Your task to perform on an android device: find snoozed emails in the gmail app Image 0: 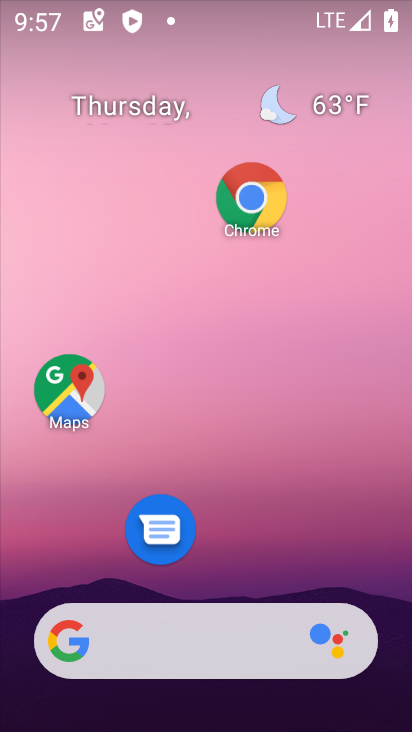
Step 0: drag from (216, 572) to (270, 21)
Your task to perform on an android device: find snoozed emails in the gmail app Image 1: 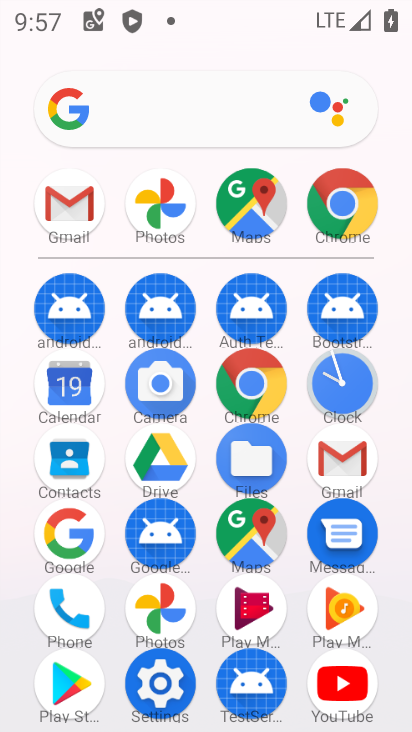
Step 1: click (363, 470)
Your task to perform on an android device: find snoozed emails in the gmail app Image 2: 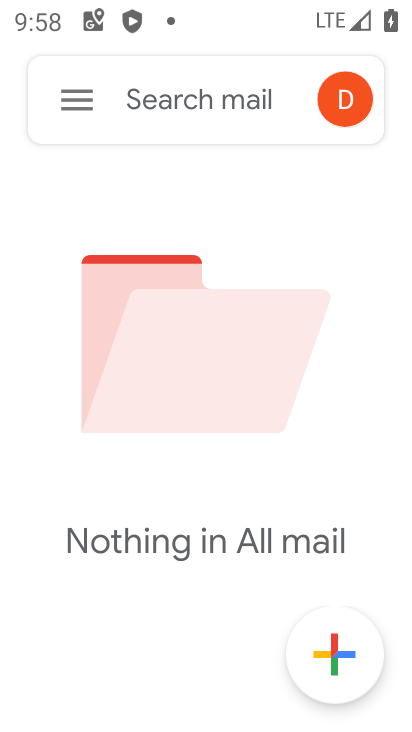
Step 2: click (80, 118)
Your task to perform on an android device: find snoozed emails in the gmail app Image 3: 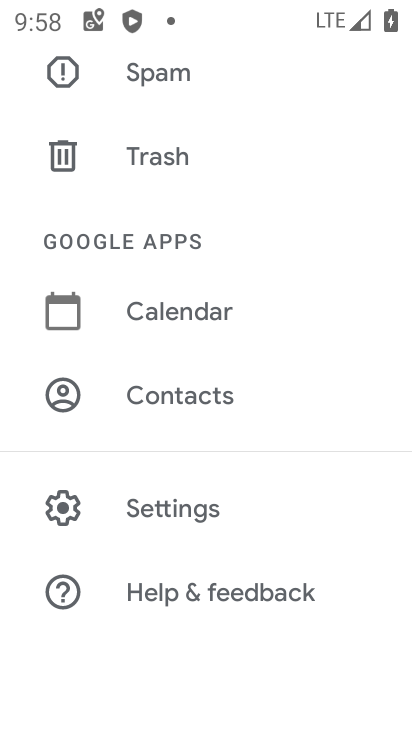
Step 3: drag from (152, 181) to (223, 714)
Your task to perform on an android device: find snoozed emails in the gmail app Image 4: 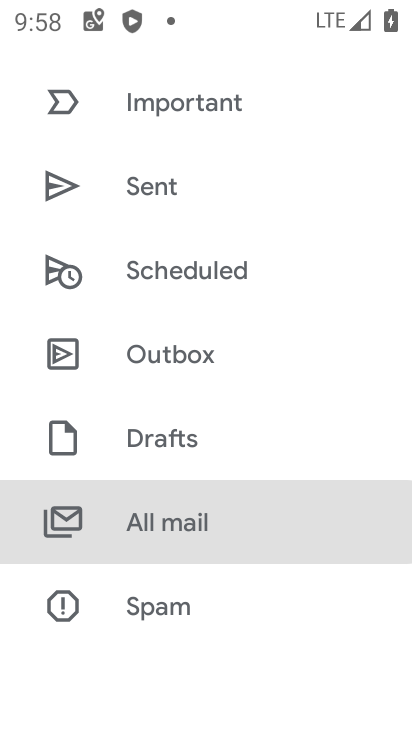
Step 4: drag from (154, 359) to (156, 622)
Your task to perform on an android device: find snoozed emails in the gmail app Image 5: 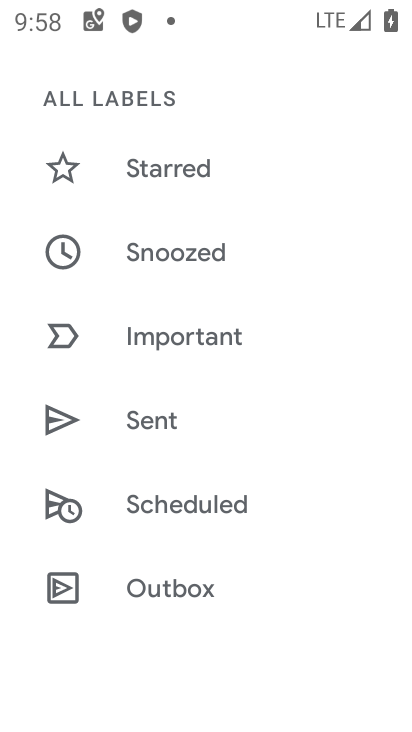
Step 5: click (122, 252)
Your task to perform on an android device: find snoozed emails in the gmail app Image 6: 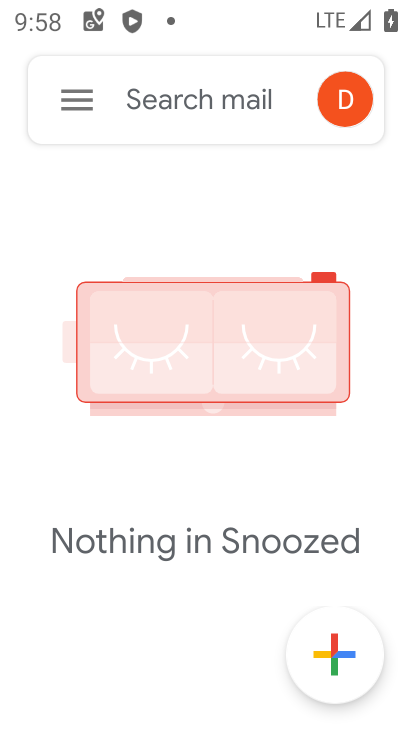
Step 6: task complete